Your task to perform on an android device: Open Youtube and go to "Your channel" Image 0: 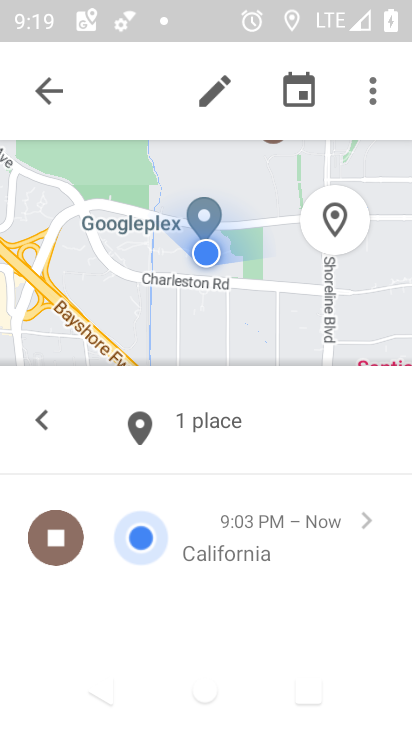
Step 0: press home button
Your task to perform on an android device: Open Youtube and go to "Your channel" Image 1: 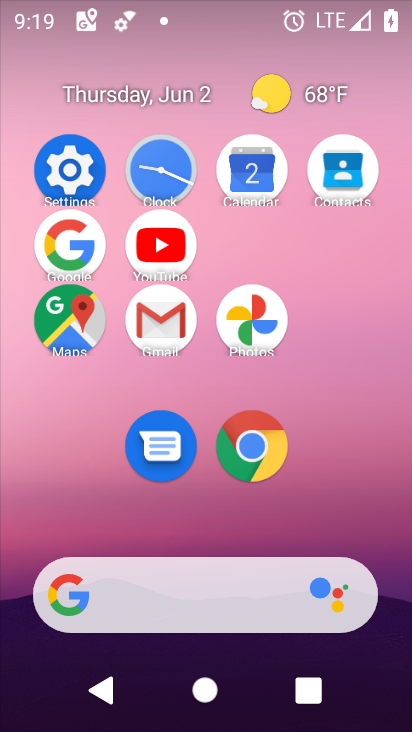
Step 1: click (147, 252)
Your task to perform on an android device: Open Youtube and go to "Your channel" Image 2: 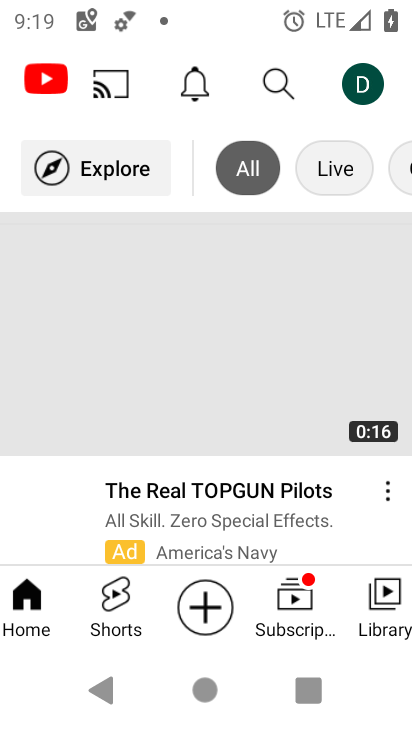
Step 2: click (373, 77)
Your task to perform on an android device: Open Youtube and go to "Your channel" Image 3: 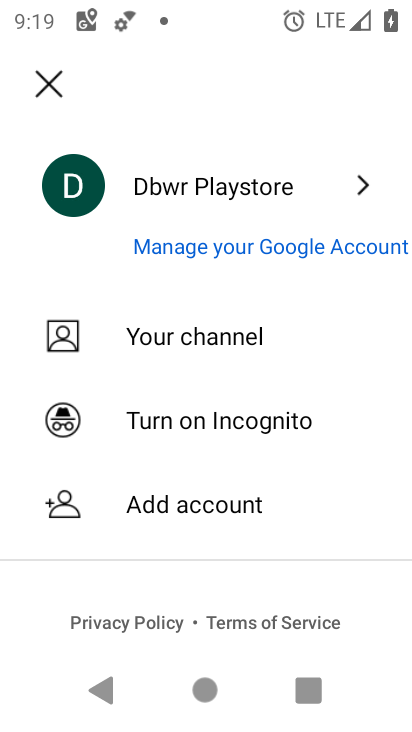
Step 3: click (250, 332)
Your task to perform on an android device: Open Youtube and go to "Your channel" Image 4: 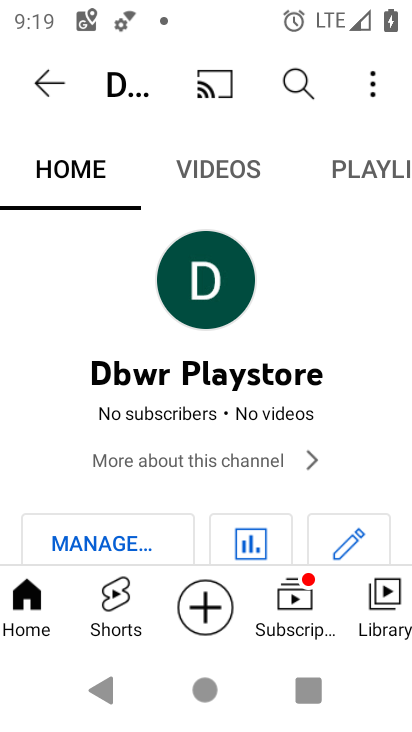
Step 4: task complete